Your task to perform on an android device: Toggle the flashlight Image 0: 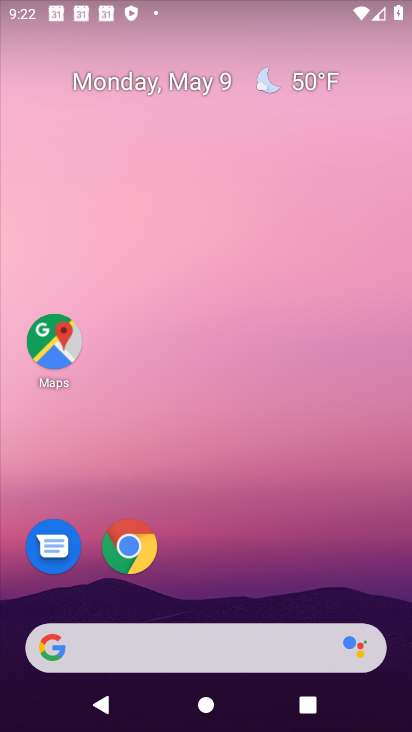
Step 0: drag from (346, 4) to (355, 530)
Your task to perform on an android device: Toggle the flashlight Image 1: 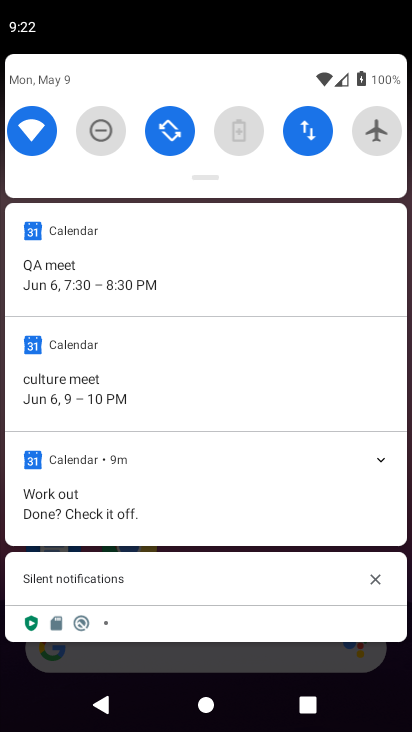
Step 1: task complete